Your task to perform on an android device: turn off wifi Image 0: 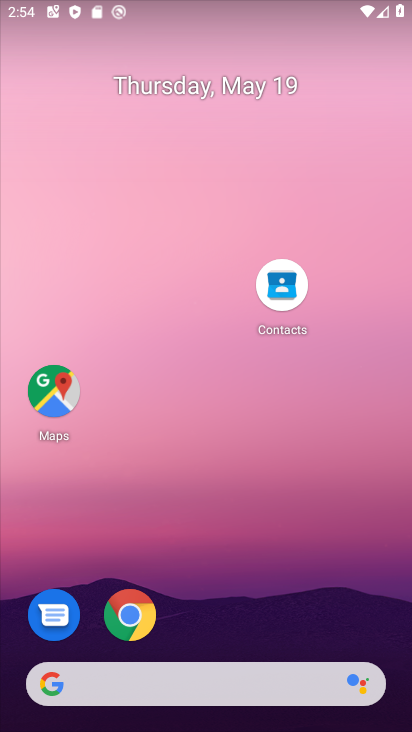
Step 0: drag from (331, 310) to (351, 56)
Your task to perform on an android device: turn off wifi Image 1: 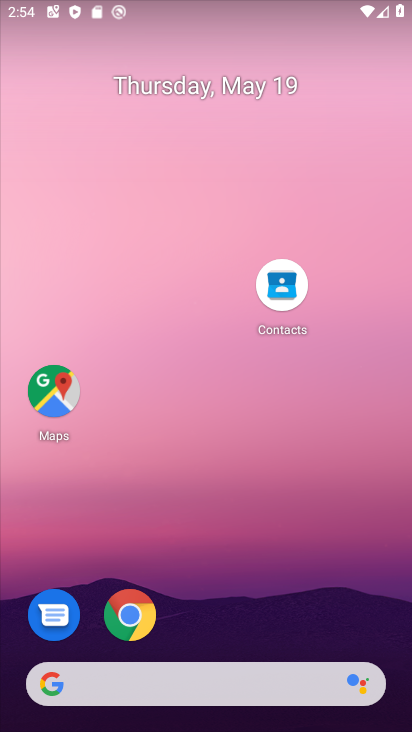
Step 1: drag from (204, 643) to (240, 44)
Your task to perform on an android device: turn off wifi Image 2: 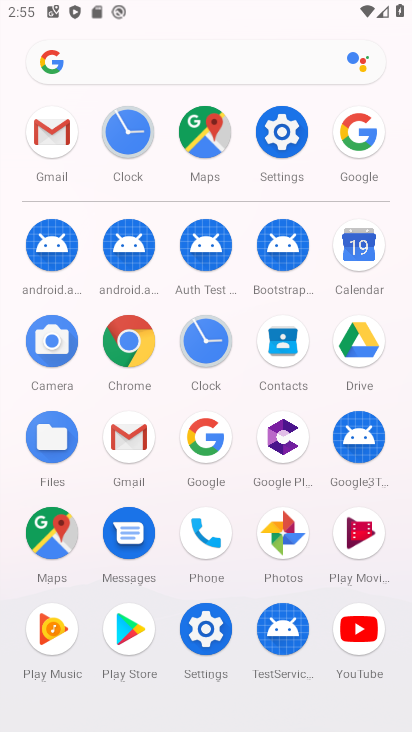
Step 2: click (275, 147)
Your task to perform on an android device: turn off wifi Image 3: 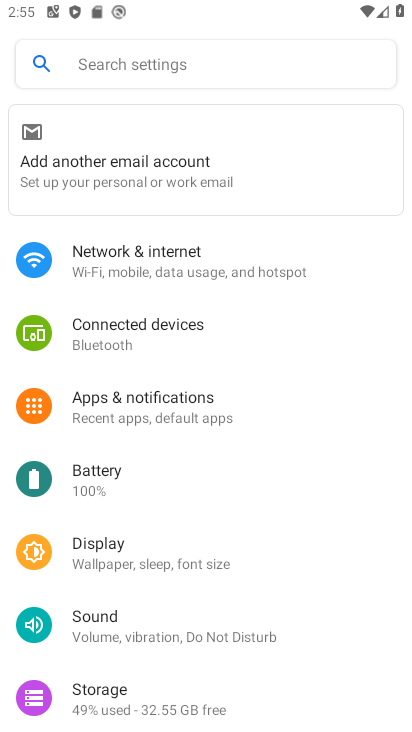
Step 3: click (199, 271)
Your task to perform on an android device: turn off wifi Image 4: 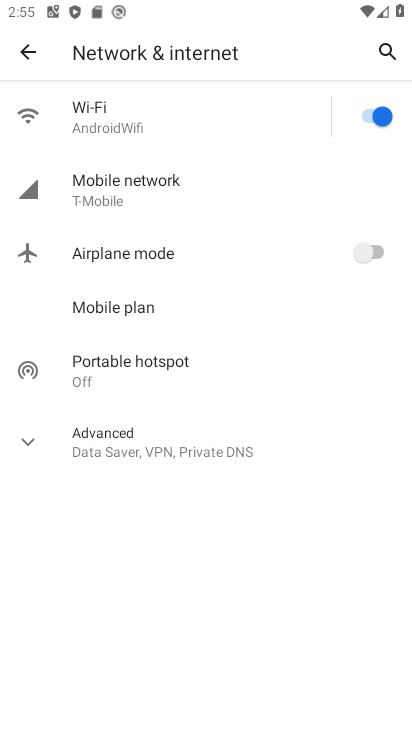
Step 4: click (366, 121)
Your task to perform on an android device: turn off wifi Image 5: 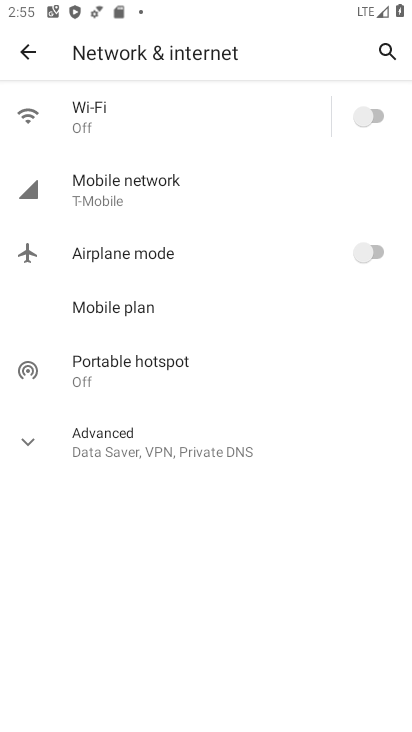
Step 5: task complete